Your task to perform on an android device: Open Yahoo.com Image 0: 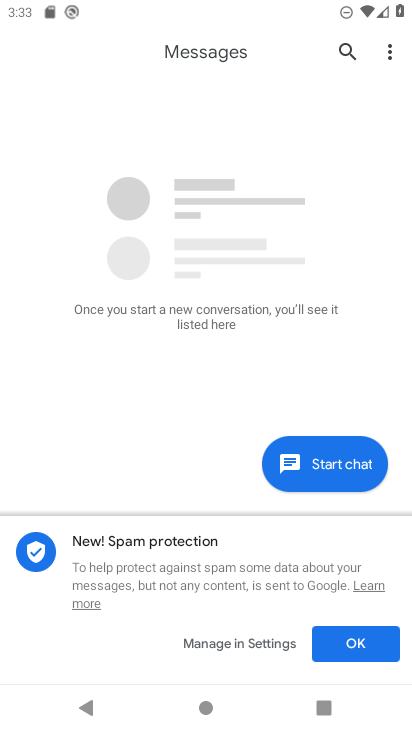
Step 0: press home button
Your task to perform on an android device: Open Yahoo.com Image 1: 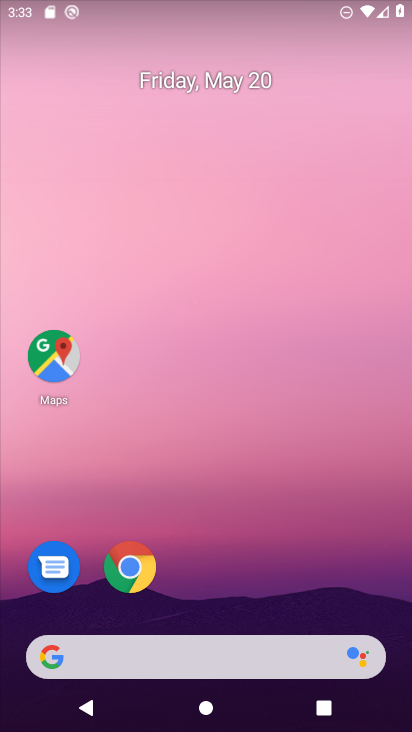
Step 1: click (134, 577)
Your task to perform on an android device: Open Yahoo.com Image 2: 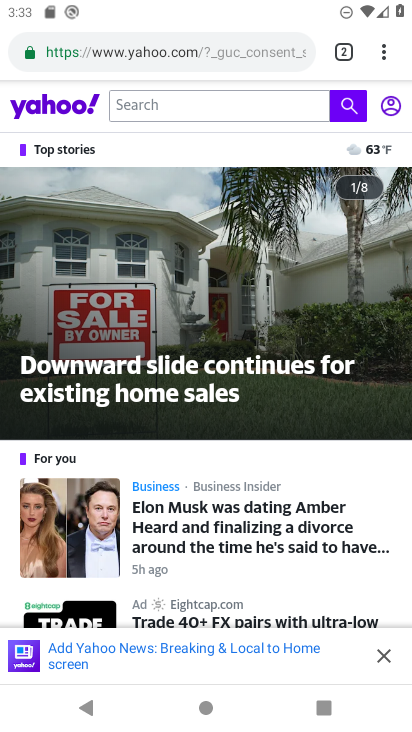
Step 2: task complete